Your task to perform on an android device: change timer sound Image 0: 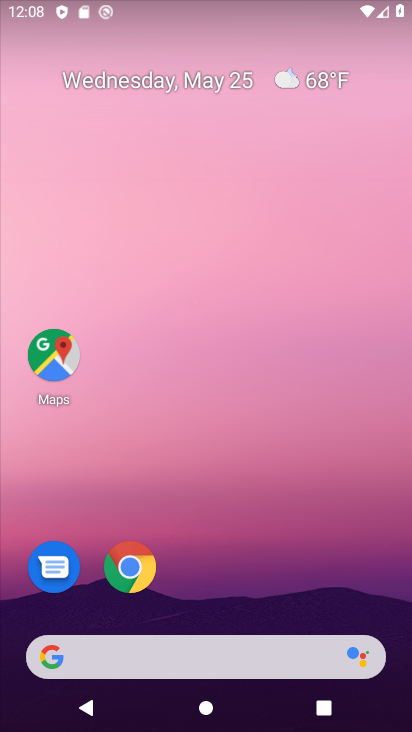
Step 0: drag from (161, 623) to (279, 146)
Your task to perform on an android device: change timer sound Image 1: 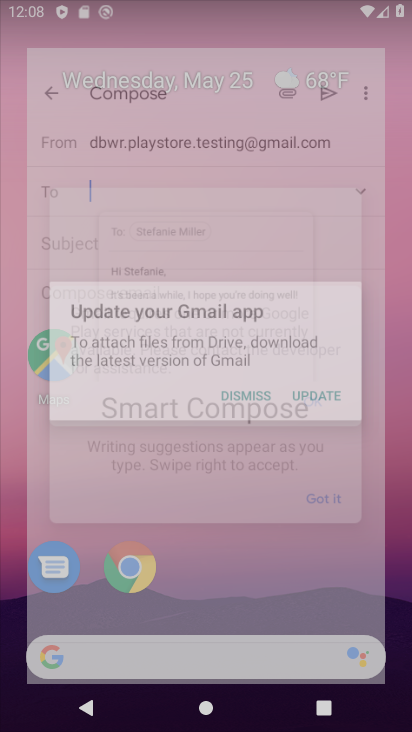
Step 1: drag from (205, 584) to (288, 171)
Your task to perform on an android device: change timer sound Image 2: 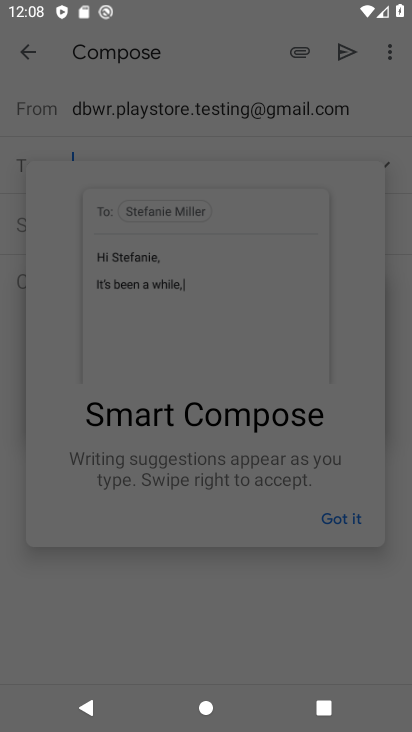
Step 2: press home button
Your task to perform on an android device: change timer sound Image 3: 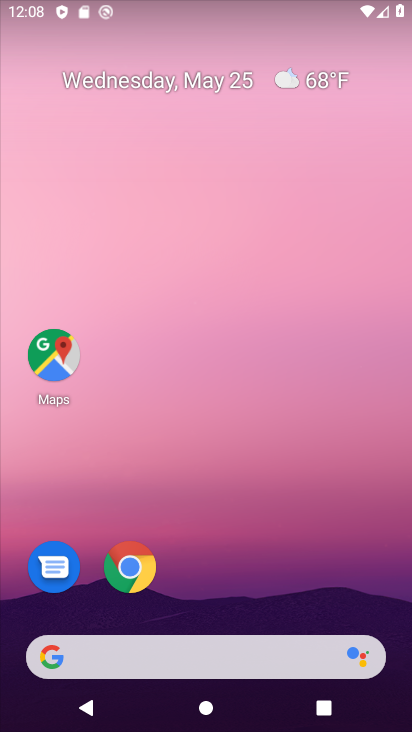
Step 3: drag from (211, 665) to (335, 144)
Your task to perform on an android device: change timer sound Image 4: 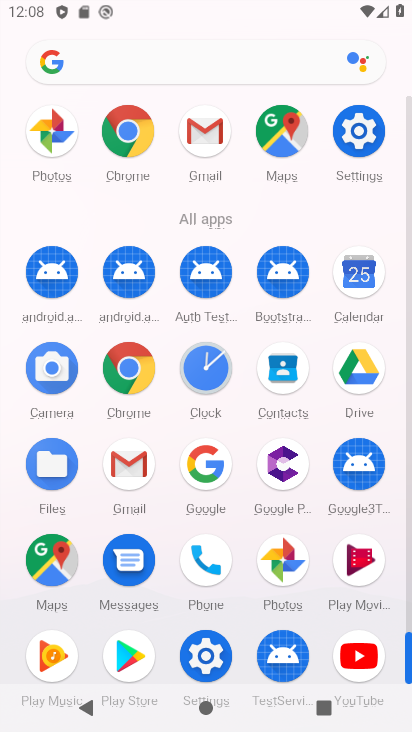
Step 4: click (212, 365)
Your task to perform on an android device: change timer sound Image 5: 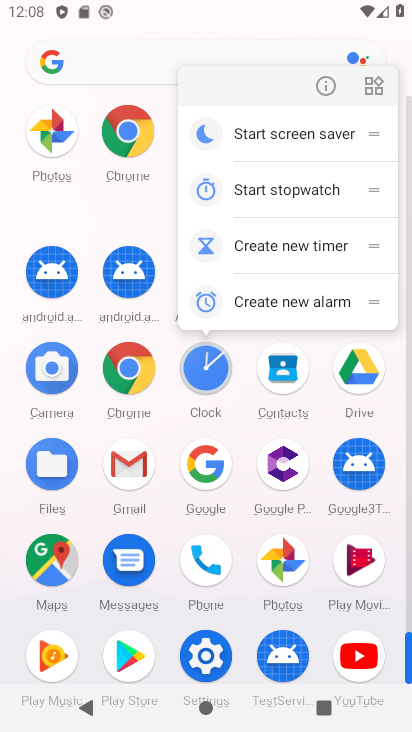
Step 5: click (215, 369)
Your task to perform on an android device: change timer sound Image 6: 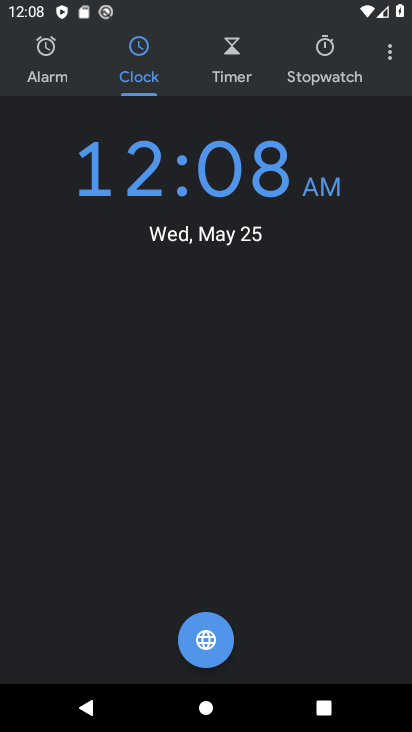
Step 6: click (406, 49)
Your task to perform on an android device: change timer sound Image 7: 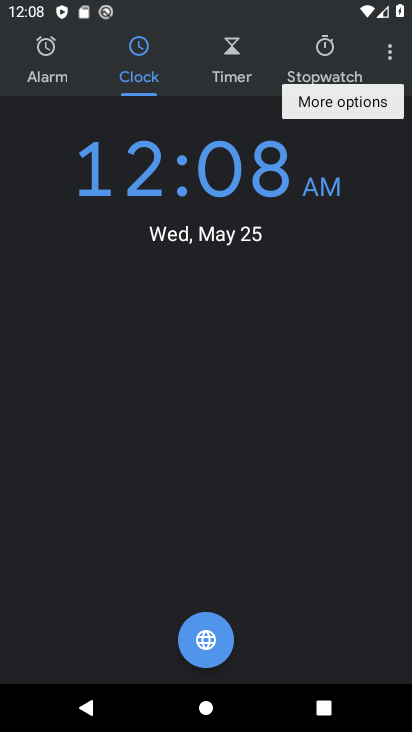
Step 7: click (386, 72)
Your task to perform on an android device: change timer sound Image 8: 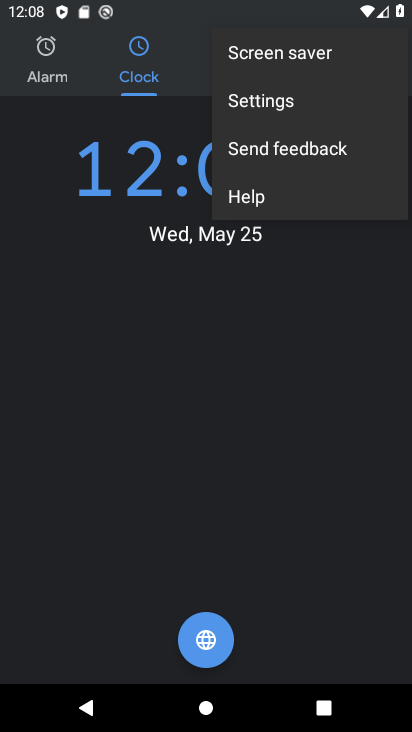
Step 8: click (346, 86)
Your task to perform on an android device: change timer sound Image 9: 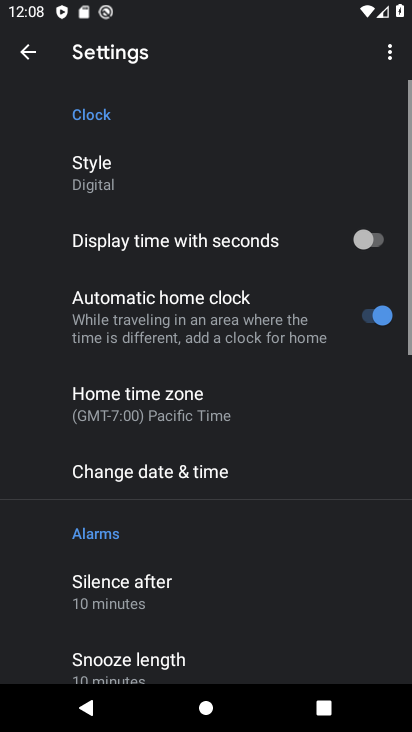
Step 9: drag from (243, 589) to (362, 40)
Your task to perform on an android device: change timer sound Image 10: 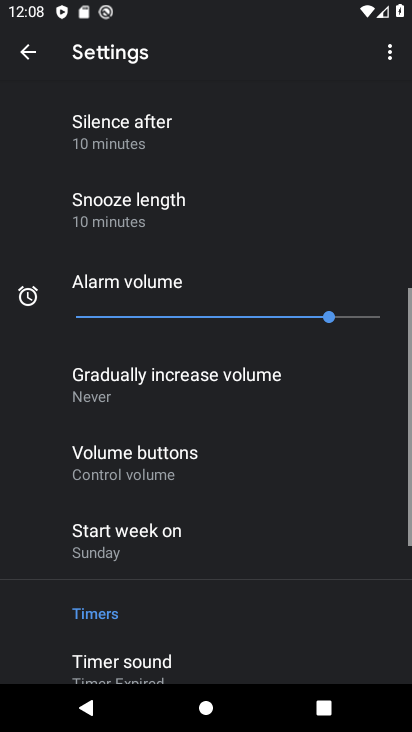
Step 10: drag from (219, 521) to (299, 210)
Your task to perform on an android device: change timer sound Image 11: 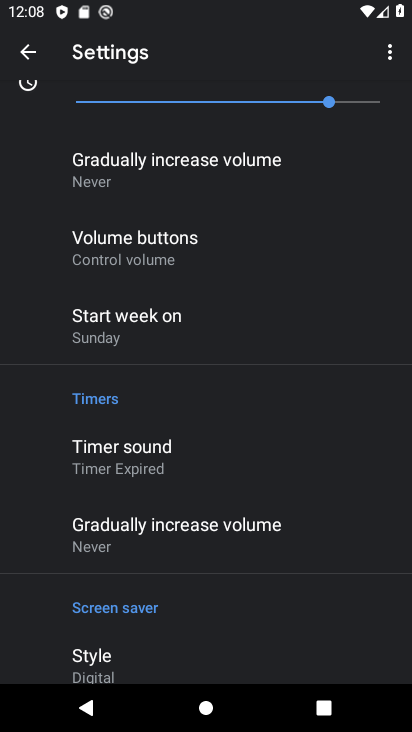
Step 11: click (187, 473)
Your task to perform on an android device: change timer sound Image 12: 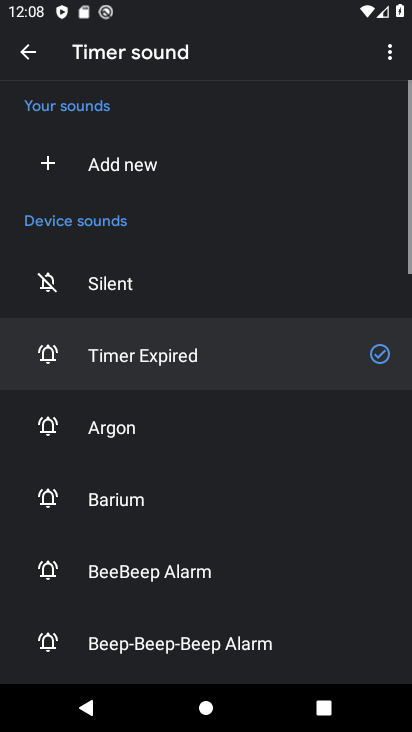
Step 12: click (219, 654)
Your task to perform on an android device: change timer sound Image 13: 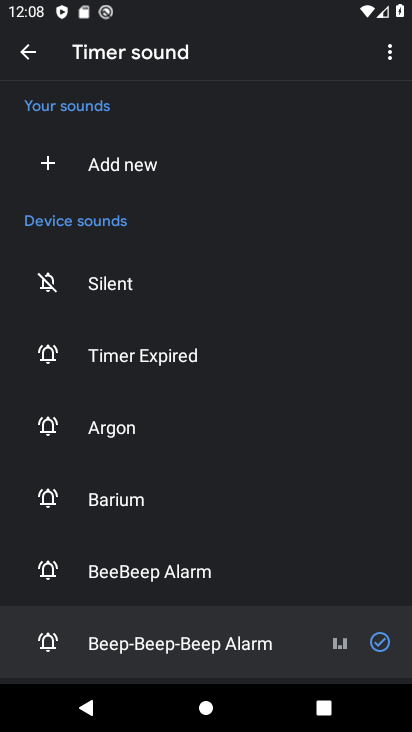
Step 13: task complete